Your task to perform on an android device: Open Chrome and go to settings Image 0: 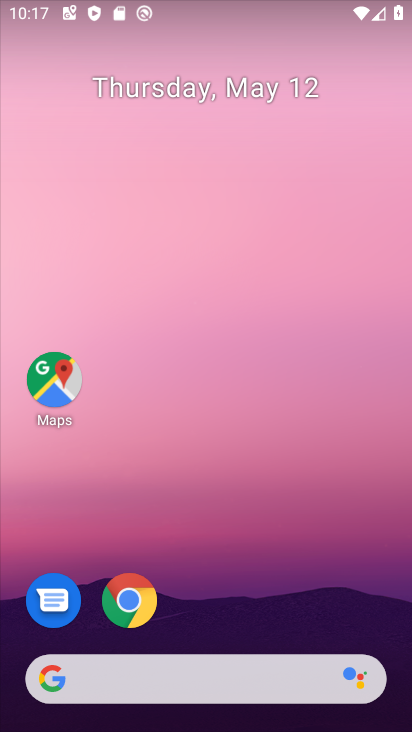
Step 0: click (144, 597)
Your task to perform on an android device: Open Chrome and go to settings Image 1: 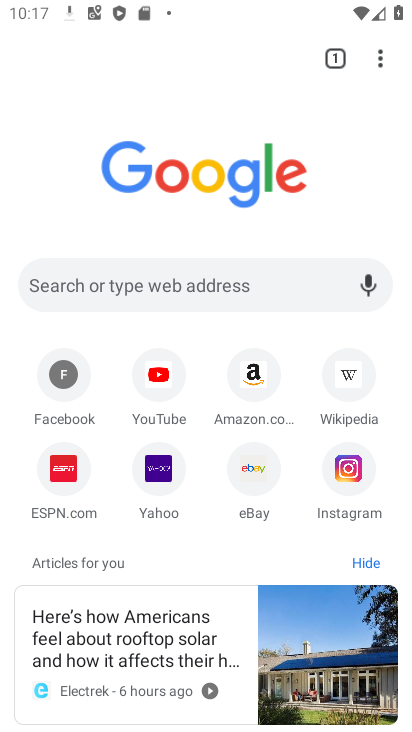
Step 1: click (374, 58)
Your task to perform on an android device: Open Chrome and go to settings Image 2: 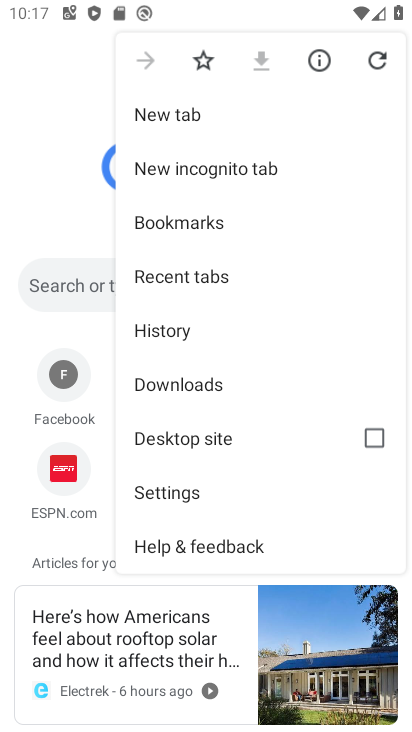
Step 2: click (167, 492)
Your task to perform on an android device: Open Chrome and go to settings Image 3: 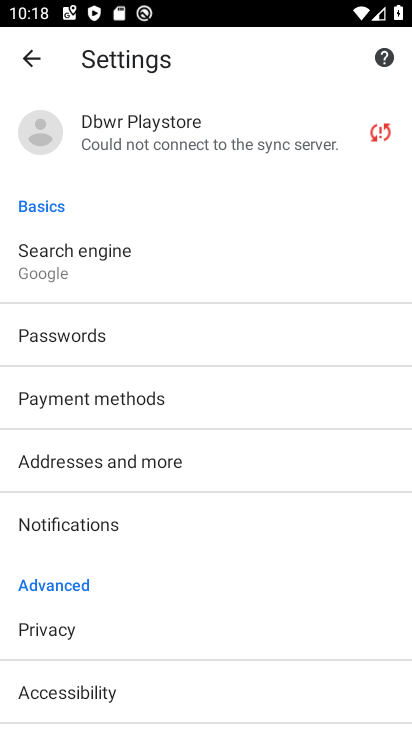
Step 3: task complete